Your task to perform on an android device: change the clock display to digital Image 0: 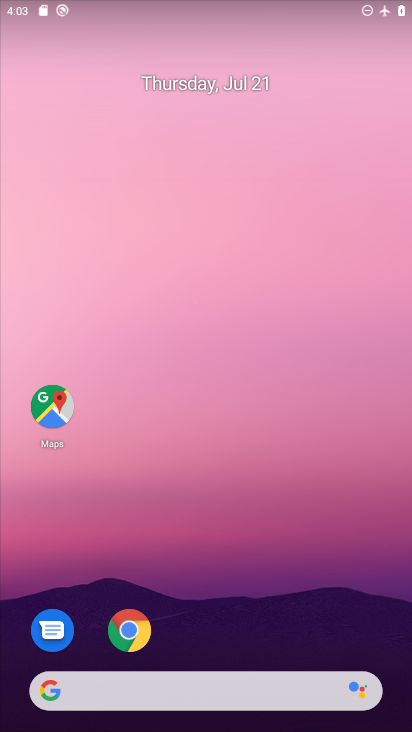
Step 0: drag from (248, 654) to (253, 6)
Your task to perform on an android device: change the clock display to digital Image 1: 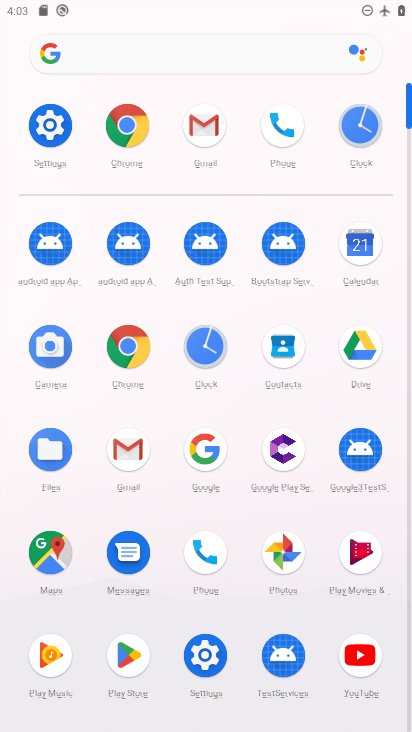
Step 1: click (361, 131)
Your task to perform on an android device: change the clock display to digital Image 2: 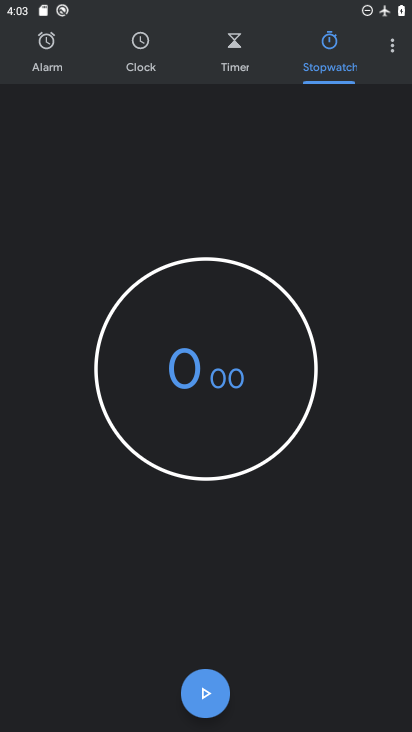
Step 2: click (391, 43)
Your task to perform on an android device: change the clock display to digital Image 3: 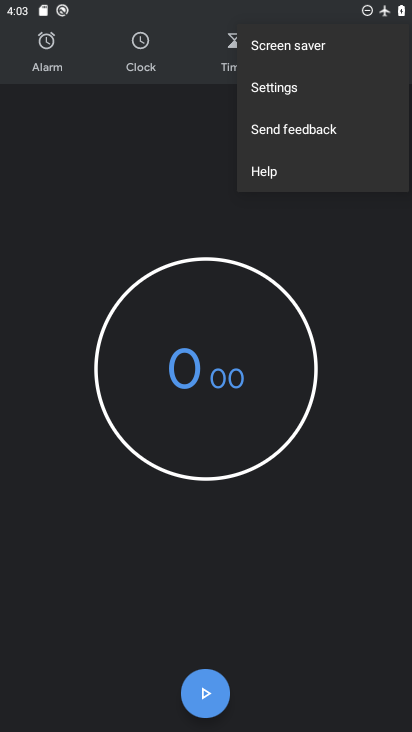
Step 3: click (311, 82)
Your task to perform on an android device: change the clock display to digital Image 4: 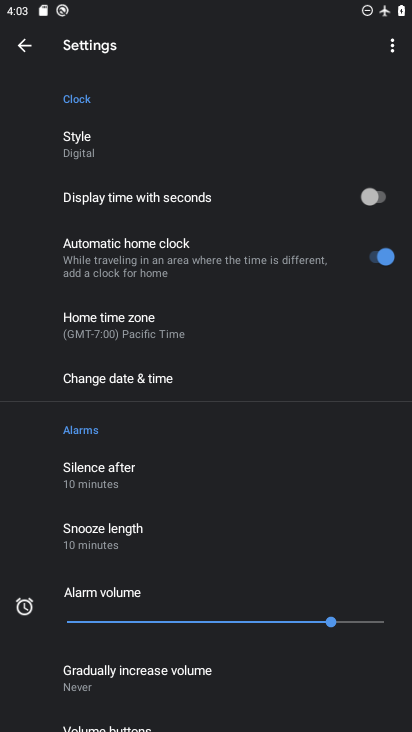
Step 4: click (96, 148)
Your task to perform on an android device: change the clock display to digital Image 5: 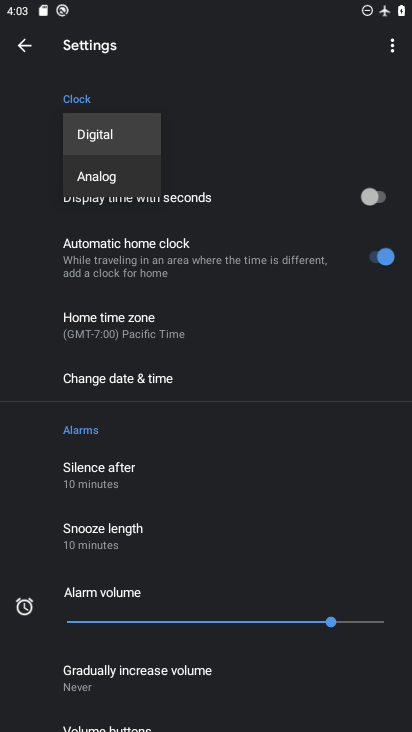
Step 5: click (113, 140)
Your task to perform on an android device: change the clock display to digital Image 6: 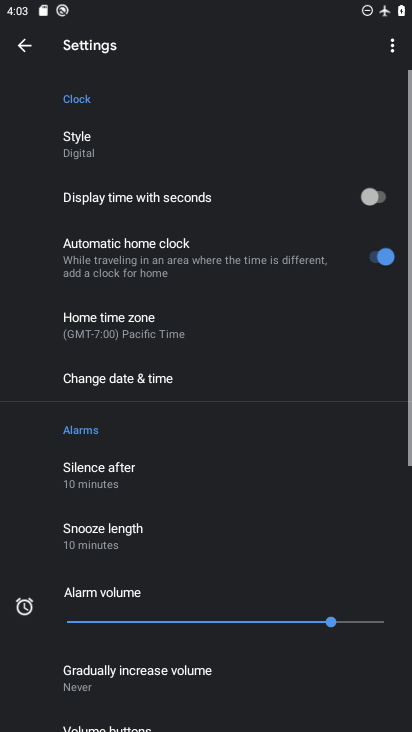
Step 6: task complete